Your task to perform on an android device: set the stopwatch Image 0: 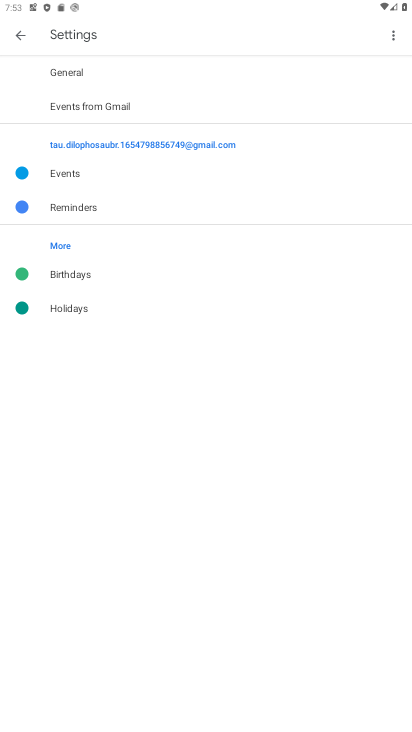
Step 0: press home button
Your task to perform on an android device: set the stopwatch Image 1: 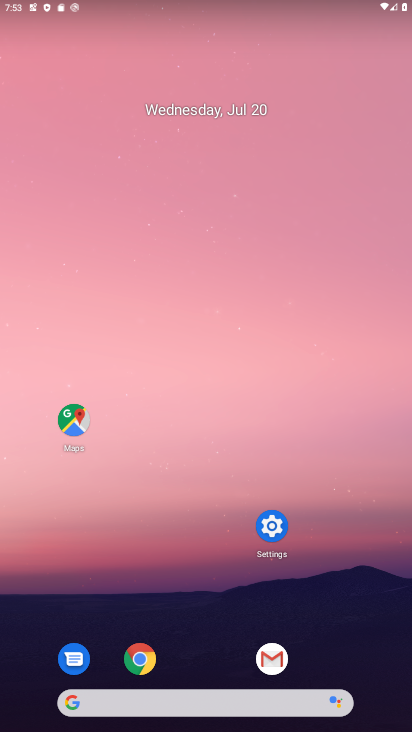
Step 1: drag from (245, 721) to (217, 135)
Your task to perform on an android device: set the stopwatch Image 2: 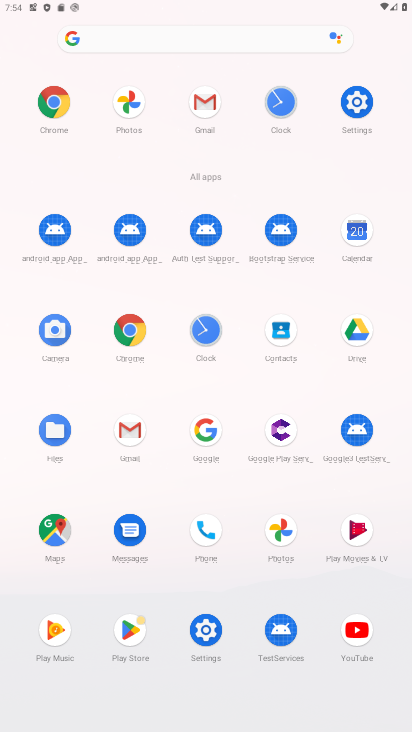
Step 2: click (212, 326)
Your task to perform on an android device: set the stopwatch Image 3: 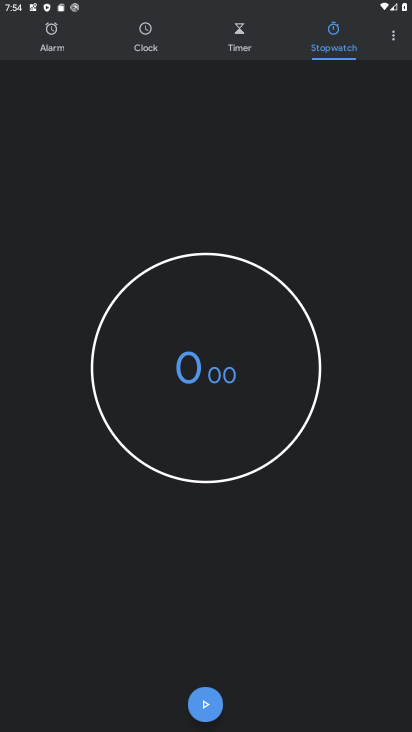
Step 3: click (215, 703)
Your task to perform on an android device: set the stopwatch Image 4: 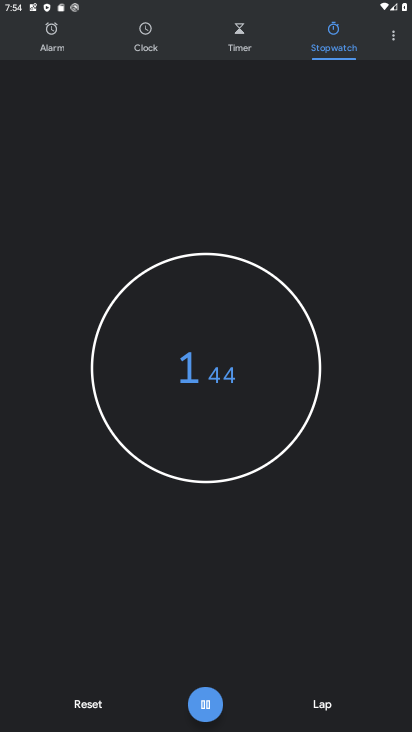
Step 4: click (215, 703)
Your task to perform on an android device: set the stopwatch Image 5: 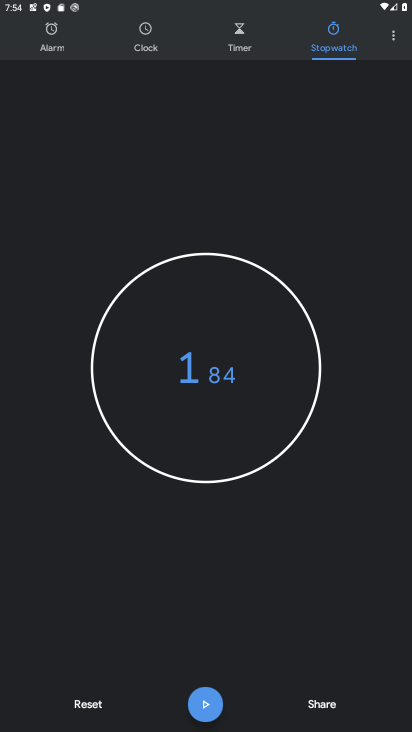
Step 5: task complete